Your task to perform on an android device: change text size in settings app Image 0: 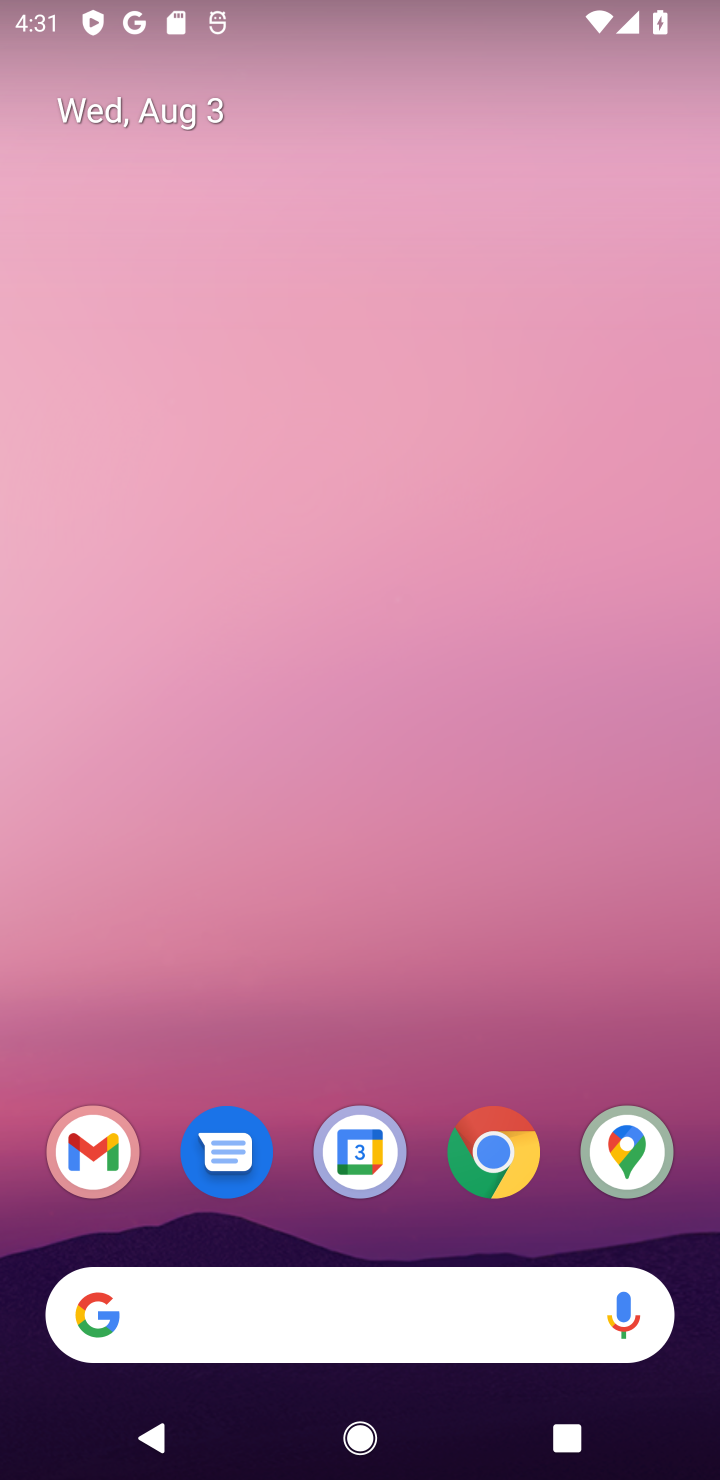
Step 0: drag from (304, 1335) to (252, 132)
Your task to perform on an android device: change text size in settings app Image 1: 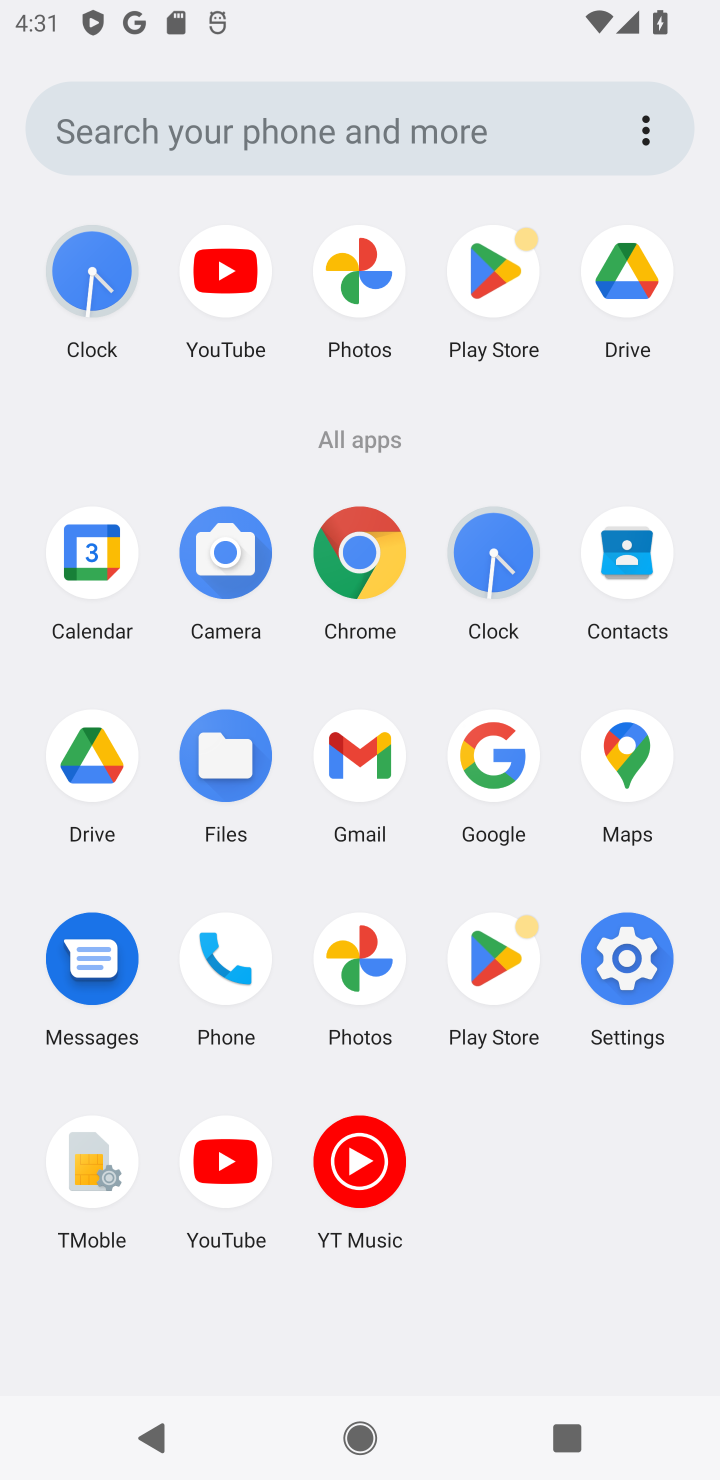
Step 1: click (595, 957)
Your task to perform on an android device: change text size in settings app Image 2: 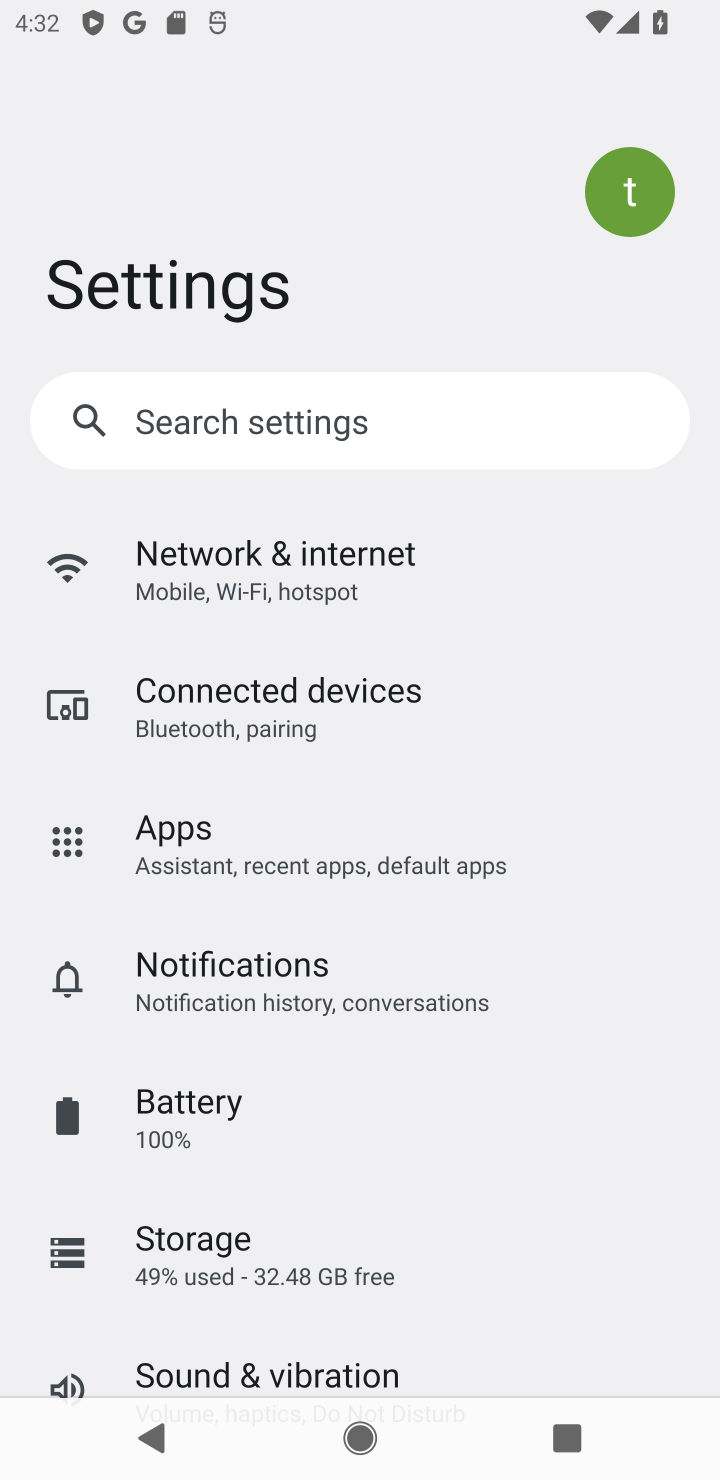
Step 2: drag from (278, 1227) to (282, 465)
Your task to perform on an android device: change text size in settings app Image 3: 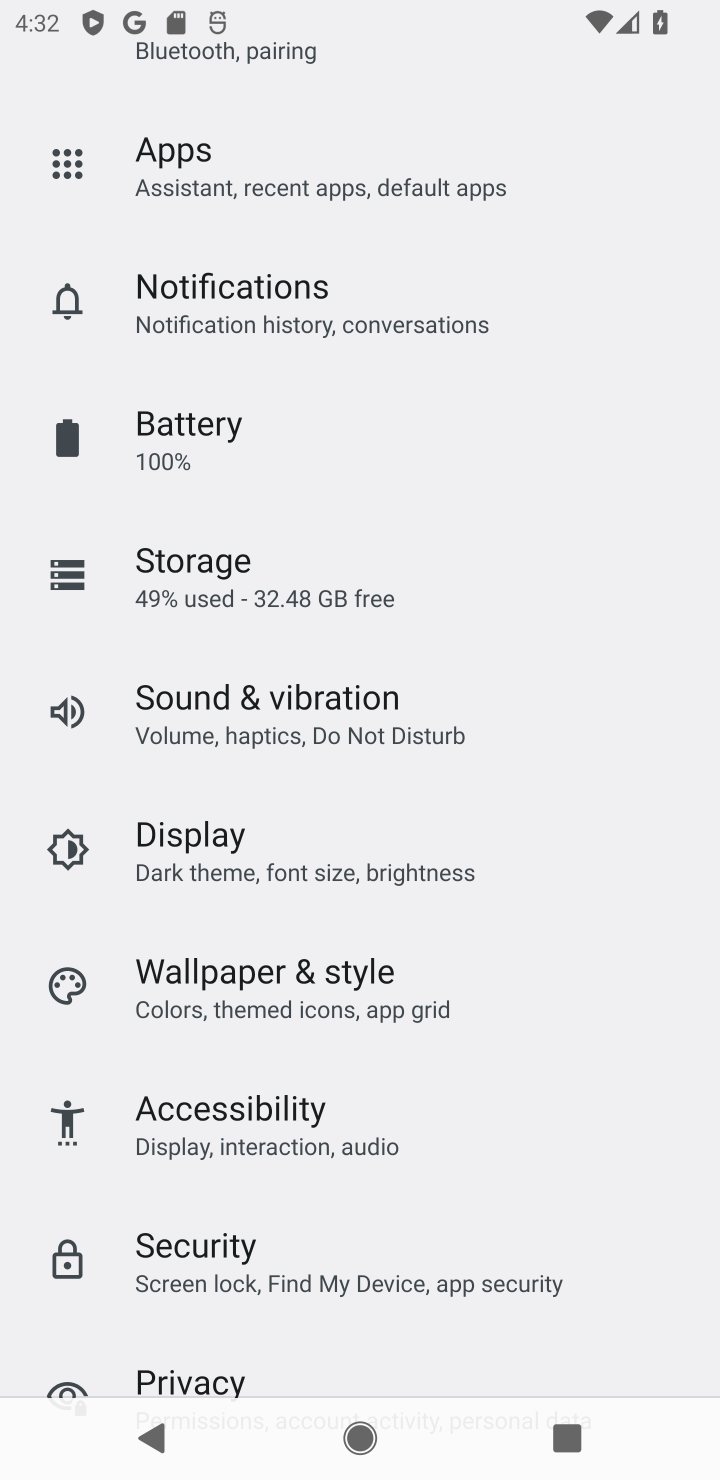
Step 3: drag from (199, 254) to (247, 594)
Your task to perform on an android device: change text size in settings app Image 4: 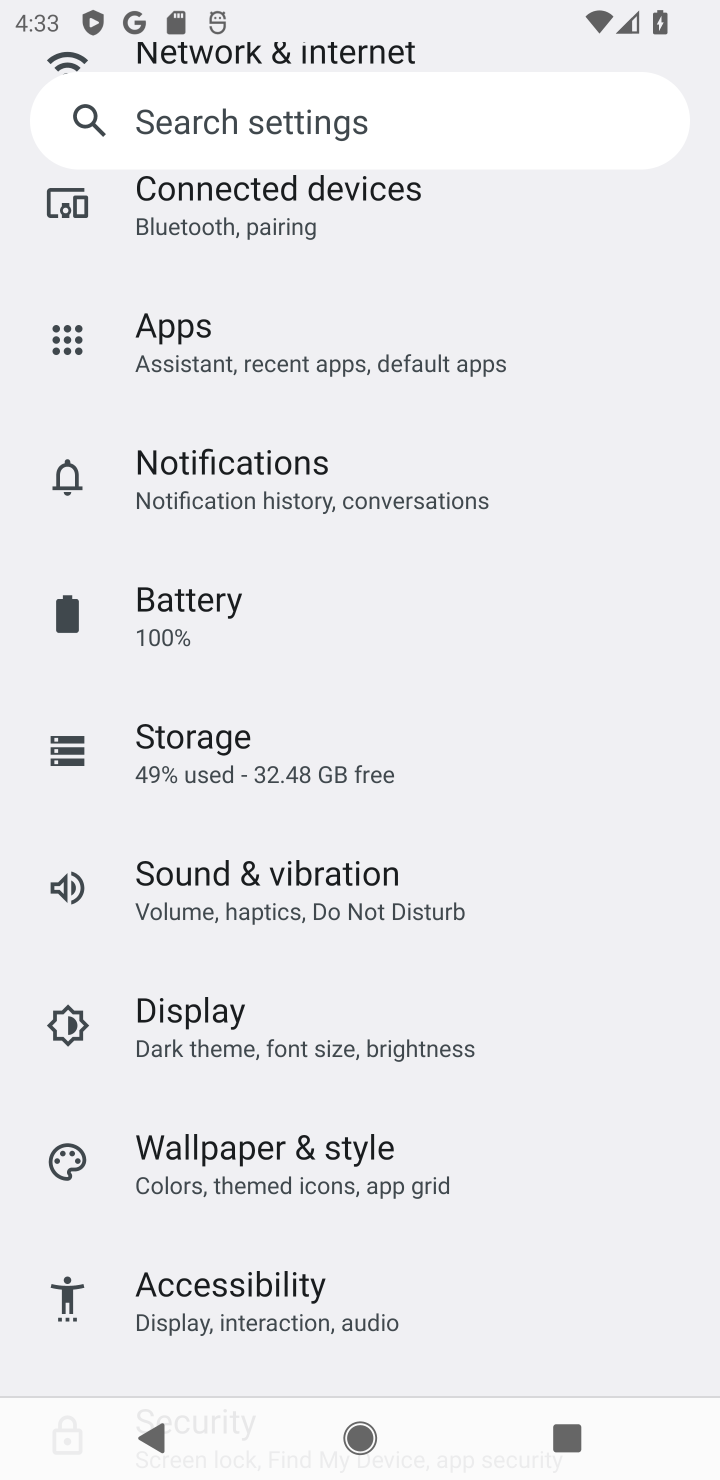
Step 4: click (189, 1015)
Your task to perform on an android device: change text size in settings app Image 5: 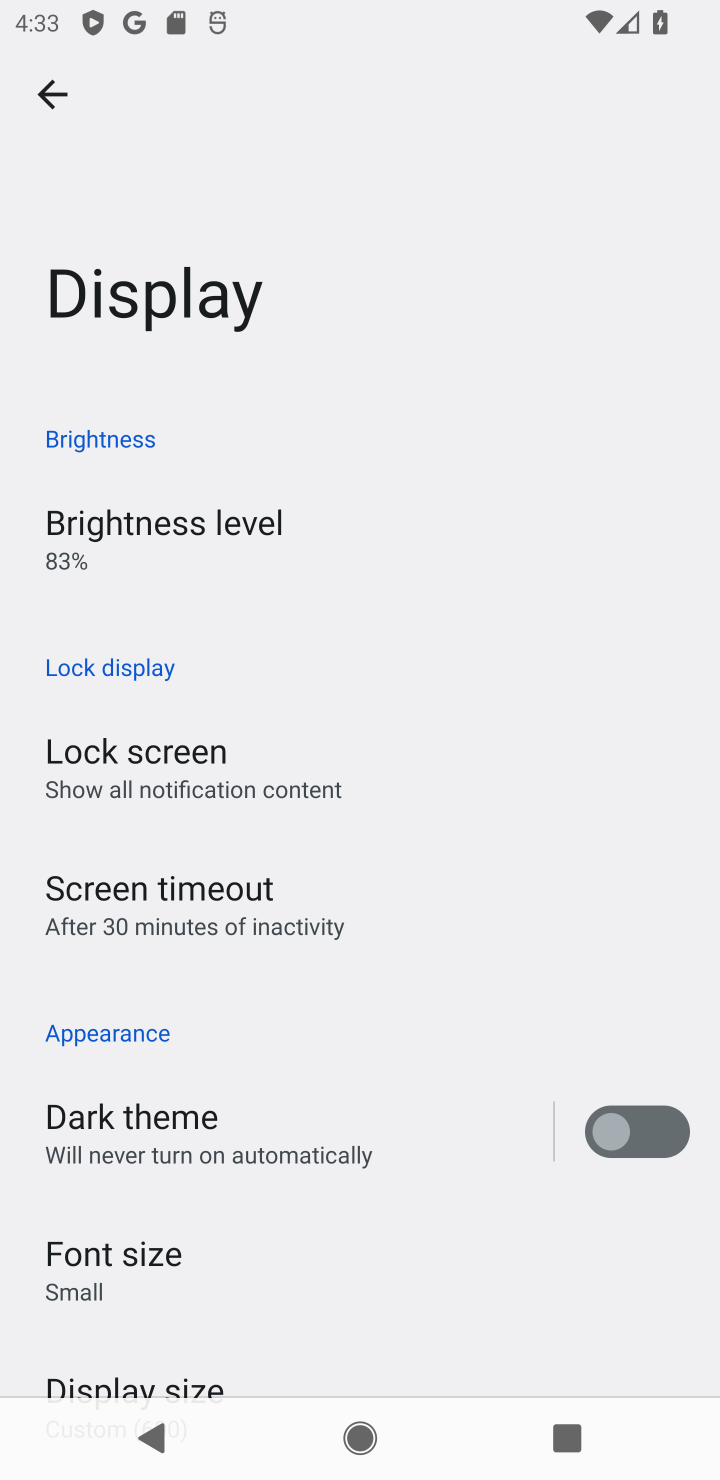
Step 5: click (244, 1290)
Your task to perform on an android device: change text size in settings app Image 6: 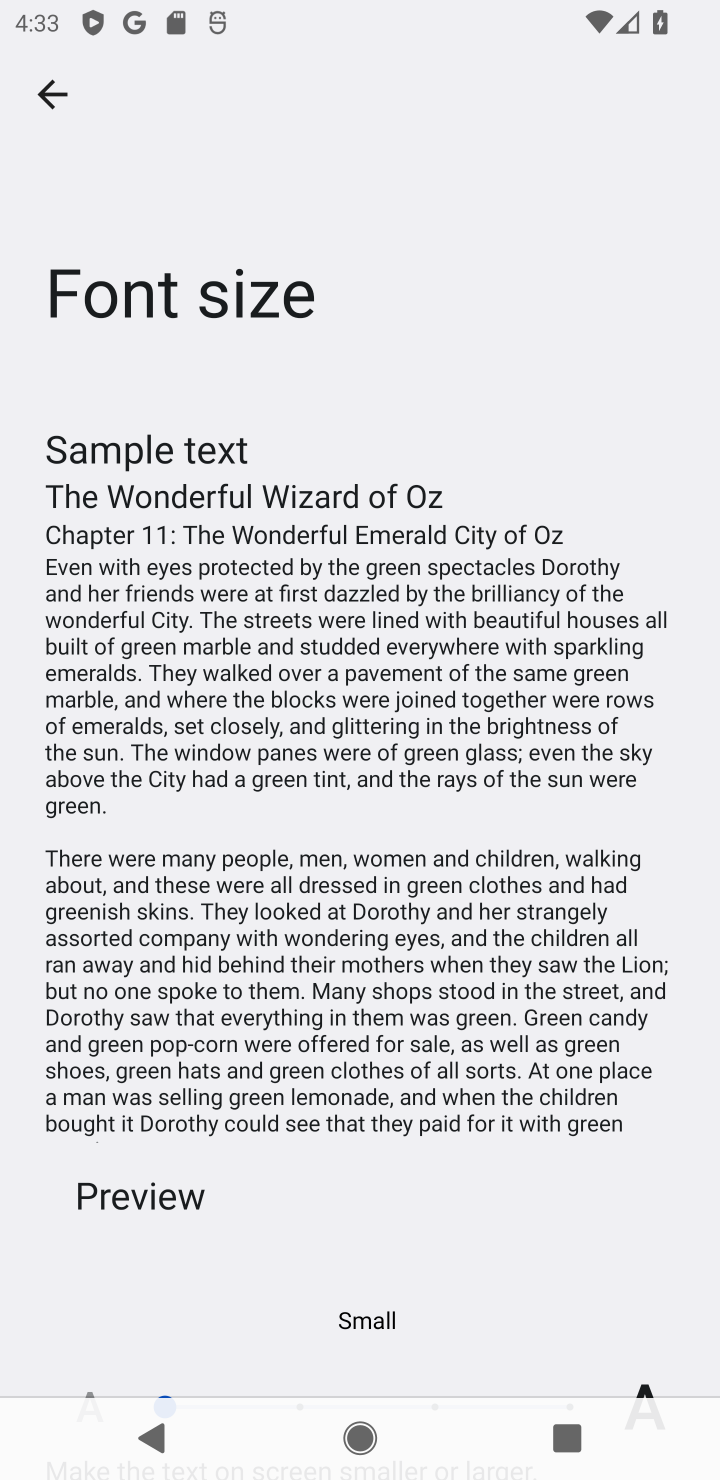
Step 6: drag from (360, 1248) to (400, 786)
Your task to perform on an android device: change text size in settings app Image 7: 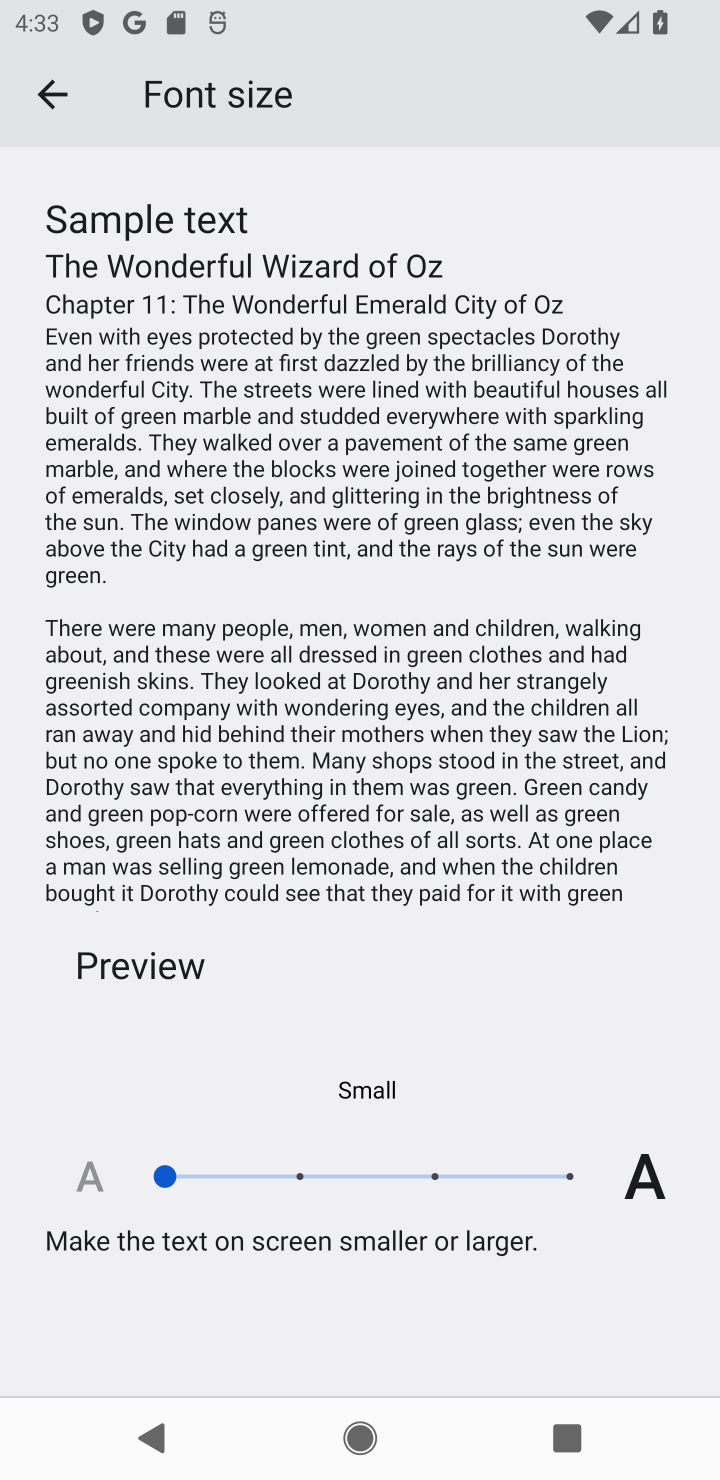
Step 7: click (297, 1179)
Your task to perform on an android device: change text size in settings app Image 8: 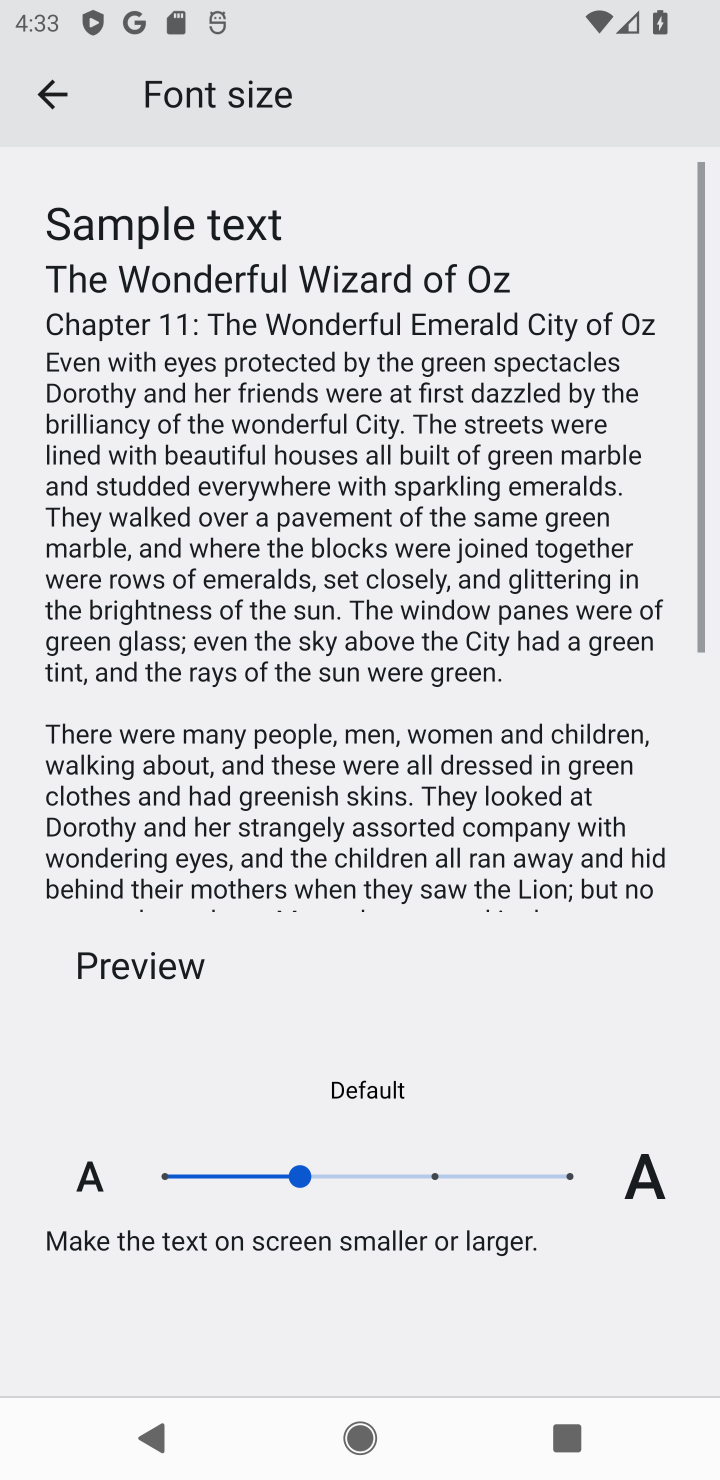
Step 8: task complete